Your task to perform on an android device: toggle javascript in the chrome app Image 0: 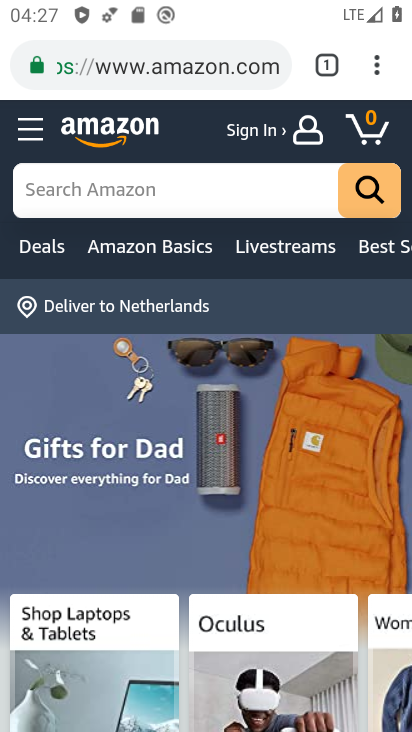
Step 0: click (397, 61)
Your task to perform on an android device: toggle javascript in the chrome app Image 1: 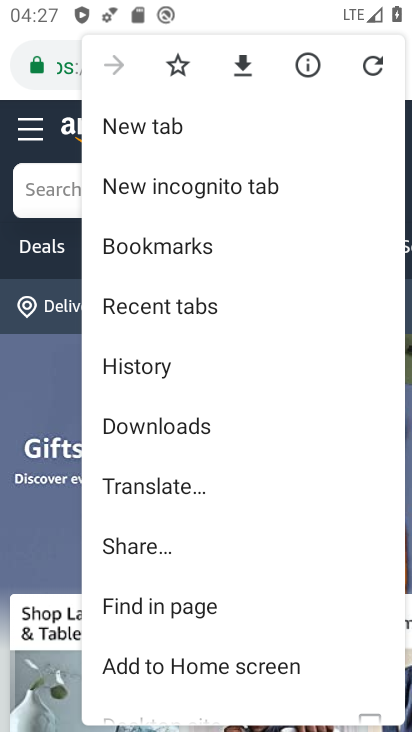
Step 1: drag from (156, 686) to (219, 330)
Your task to perform on an android device: toggle javascript in the chrome app Image 2: 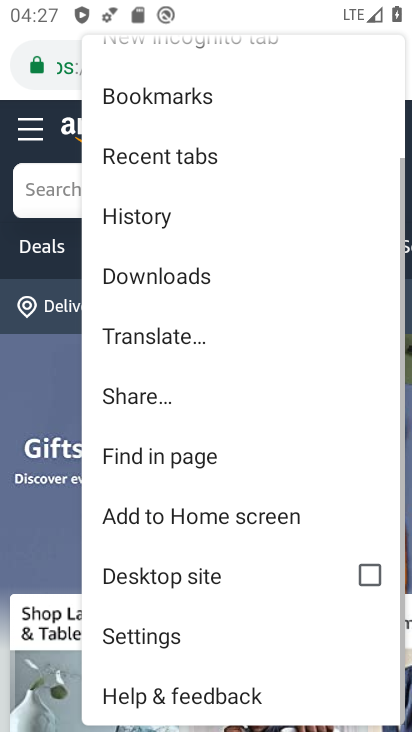
Step 2: click (272, 178)
Your task to perform on an android device: toggle javascript in the chrome app Image 3: 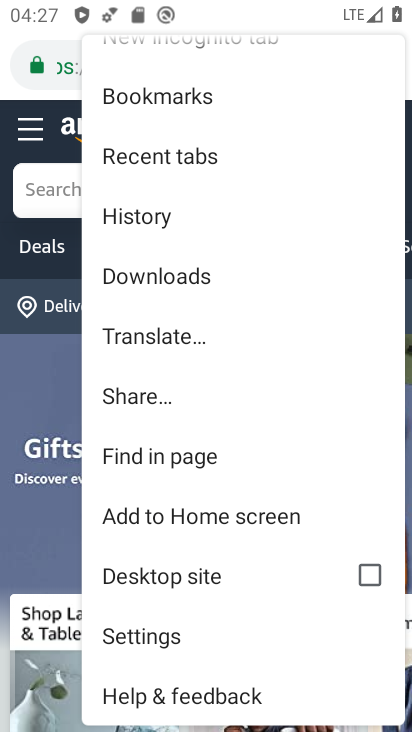
Step 3: click (151, 654)
Your task to perform on an android device: toggle javascript in the chrome app Image 4: 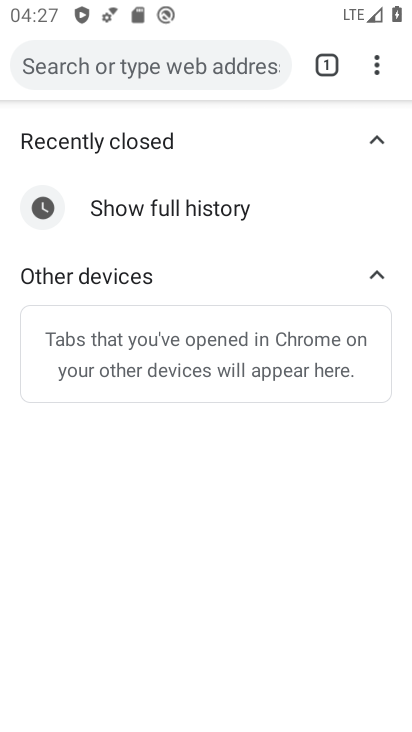
Step 4: click (387, 63)
Your task to perform on an android device: toggle javascript in the chrome app Image 5: 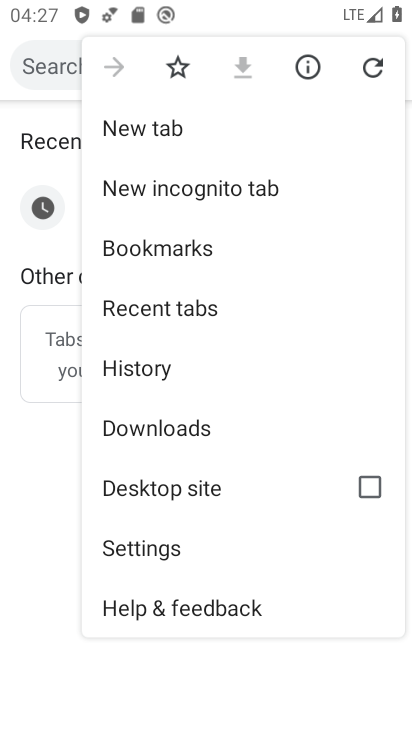
Step 5: click (145, 558)
Your task to perform on an android device: toggle javascript in the chrome app Image 6: 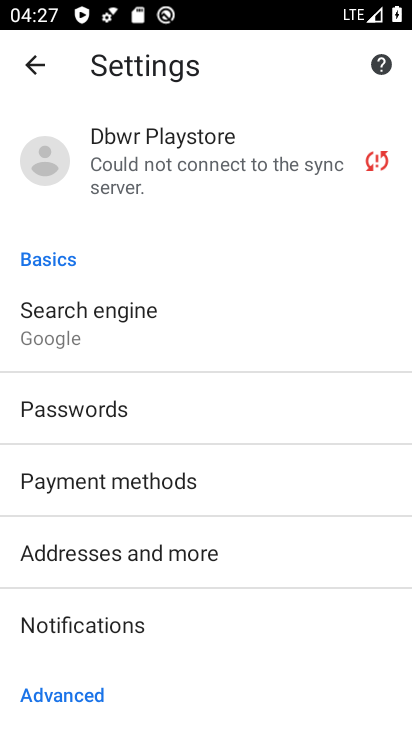
Step 6: drag from (80, 667) to (184, 135)
Your task to perform on an android device: toggle javascript in the chrome app Image 7: 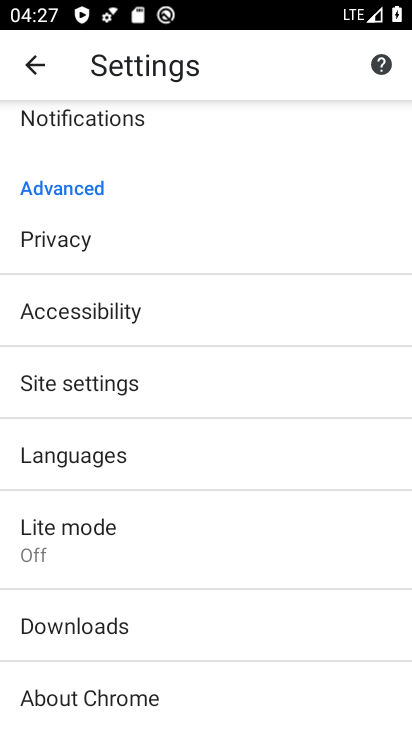
Step 7: click (78, 379)
Your task to perform on an android device: toggle javascript in the chrome app Image 8: 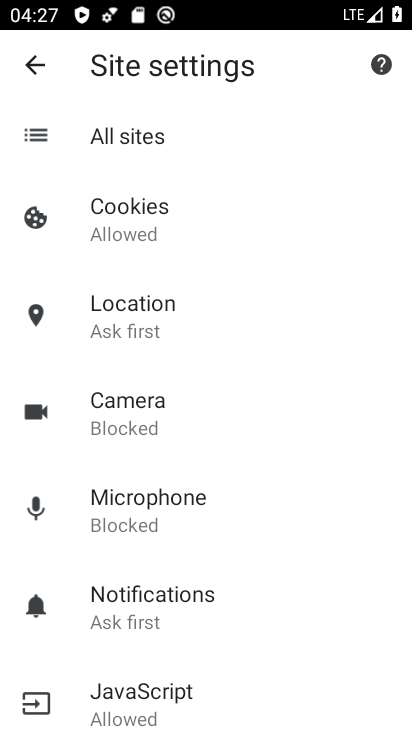
Step 8: click (127, 687)
Your task to perform on an android device: toggle javascript in the chrome app Image 9: 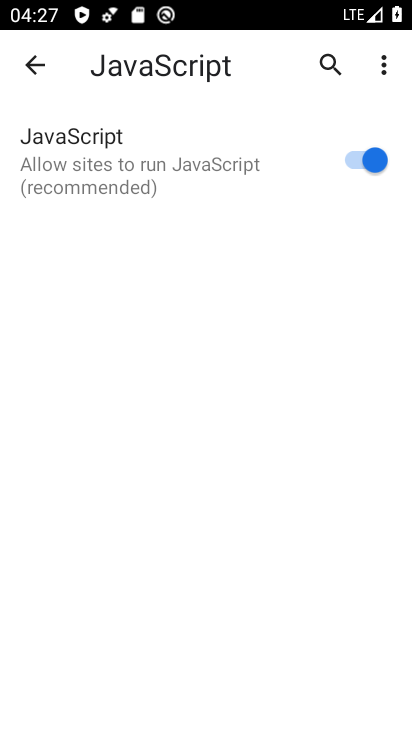
Step 9: click (356, 157)
Your task to perform on an android device: toggle javascript in the chrome app Image 10: 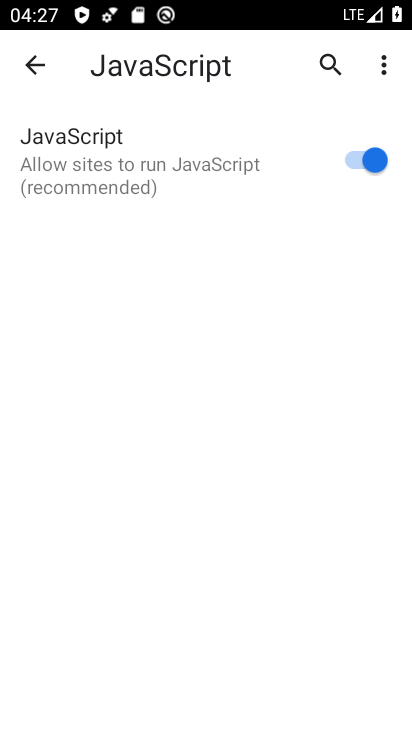
Step 10: click (356, 157)
Your task to perform on an android device: toggle javascript in the chrome app Image 11: 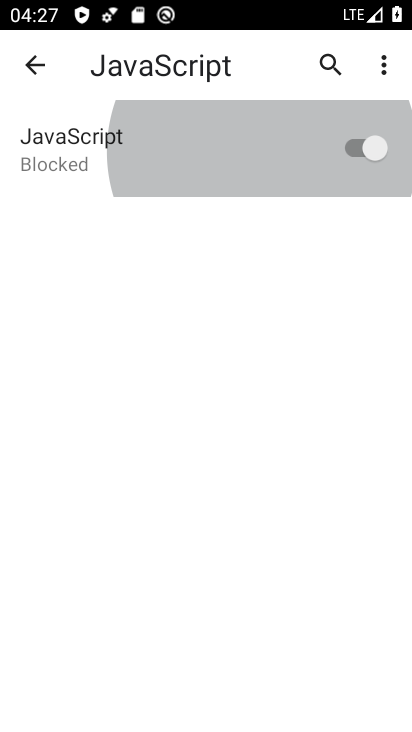
Step 11: click (356, 157)
Your task to perform on an android device: toggle javascript in the chrome app Image 12: 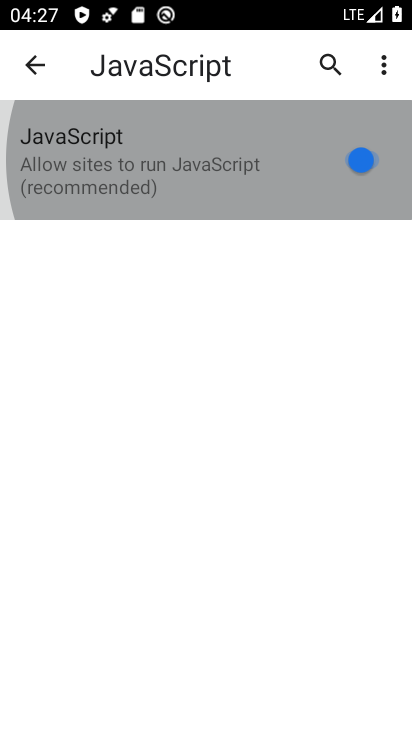
Step 12: click (356, 157)
Your task to perform on an android device: toggle javascript in the chrome app Image 13: 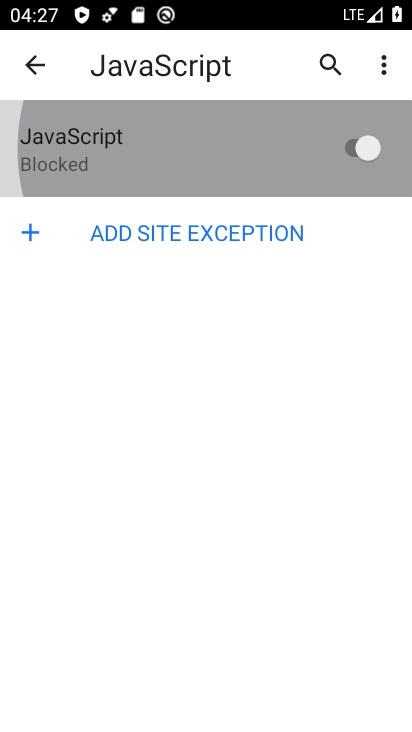
Step 13: click (356, 157)
Your task to perform on an android device: toggle javascript in the chrome app Image 14: 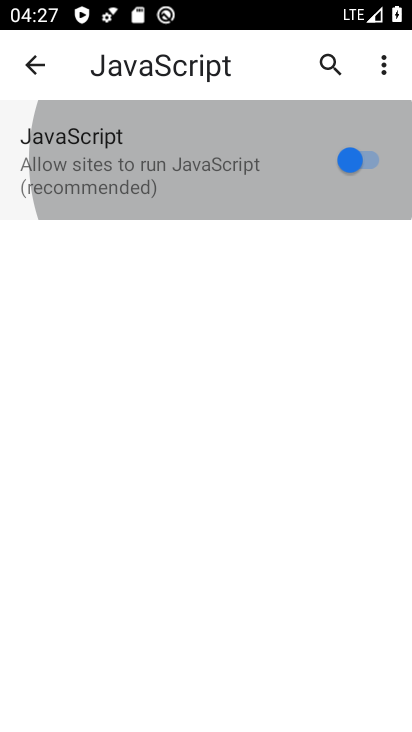
Step 14: click (356, 157)
Your task to perform on an android device: toggle javascript in the chrome app Image 15: 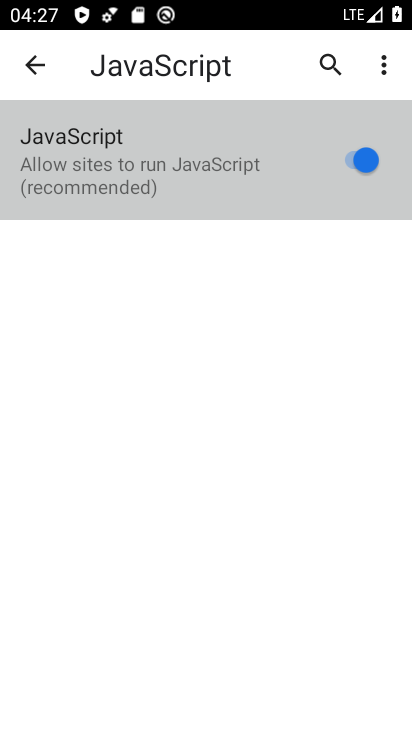
Step 15: click (356, 157)
Your task to perform on an android device: toggle javascript in the chrome app Image 16: 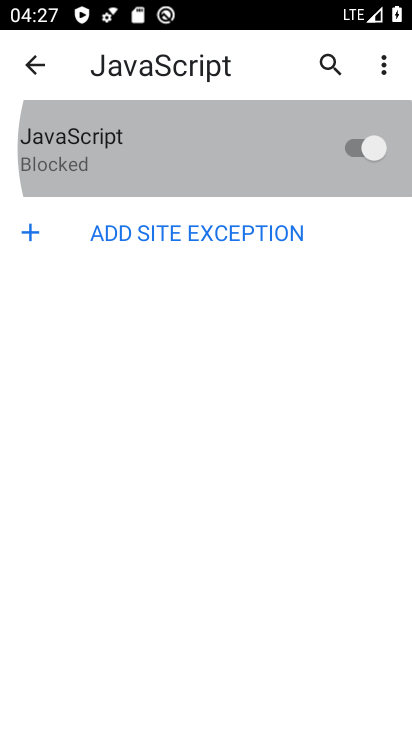
Step 16: click (356, 157)
Your task to perform on an android device: toggle javascript in the chrome app Image 17: 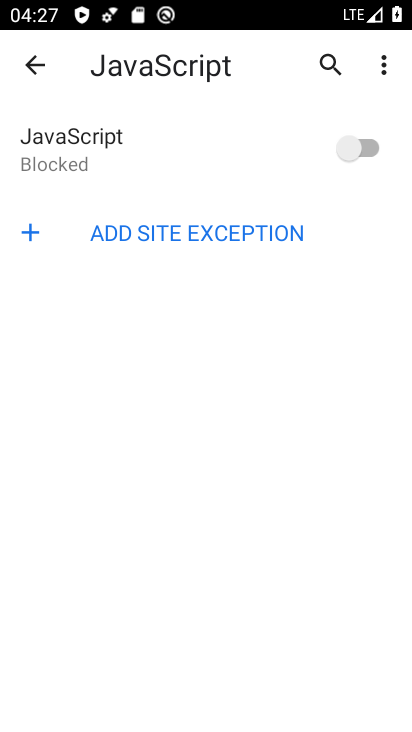
Step 17: task complete